Your task to perform on an android device: turn off wifi Image 0: 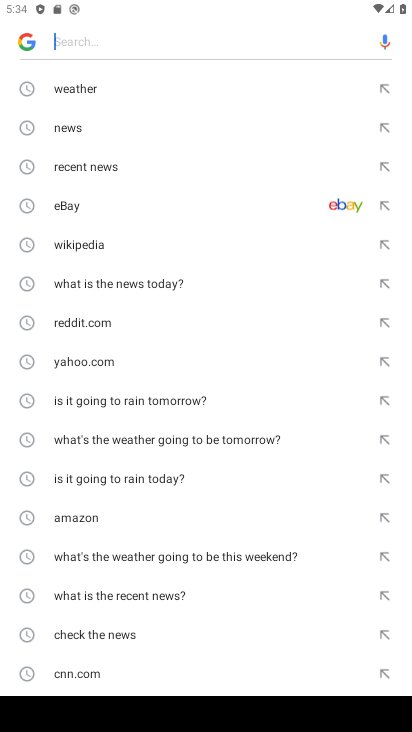
Step 0: press home button
Your task to perform on an android device: turn off wifi Image 1: 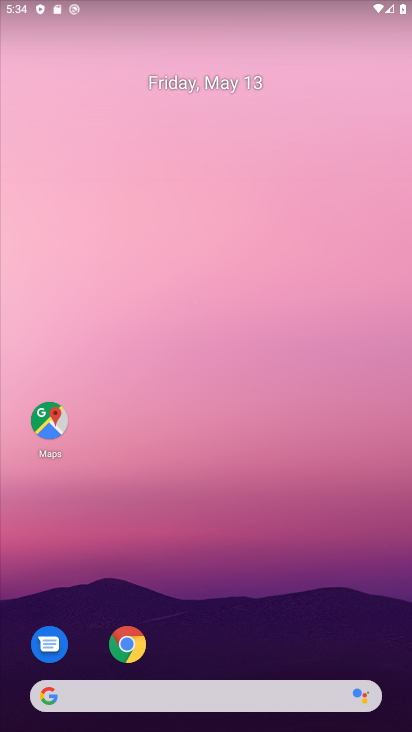
Step 1: drag from (224, 642) to (270, 136)
Your task to perform on an android device: turn off wifi Image 2: 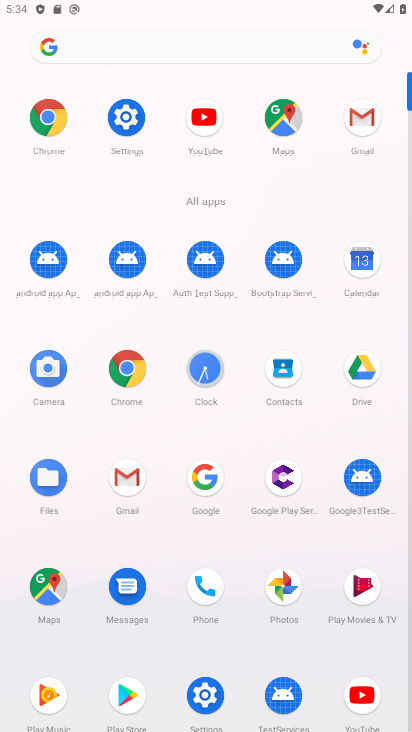
Step 2: click (131, 133)
Your task to perform on an android device: turn off wifi Image 3: 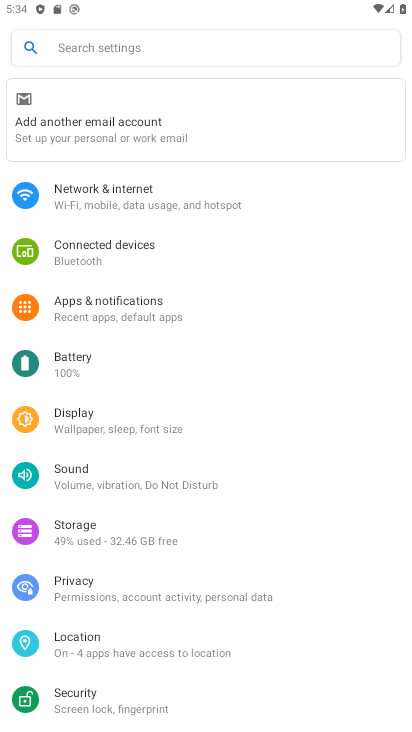
Step 3: click (124, 198)
Your task to perform on an android device: turn off wifi Image 4: 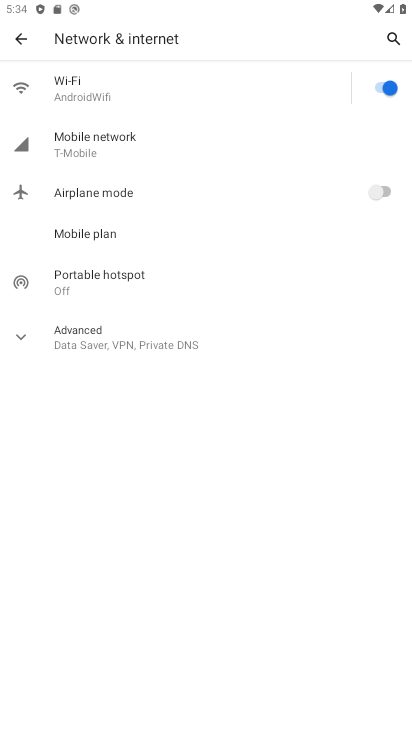
Step 4: click (371, 89)
Your task to perform on an android device: turn off wifi Image 5: 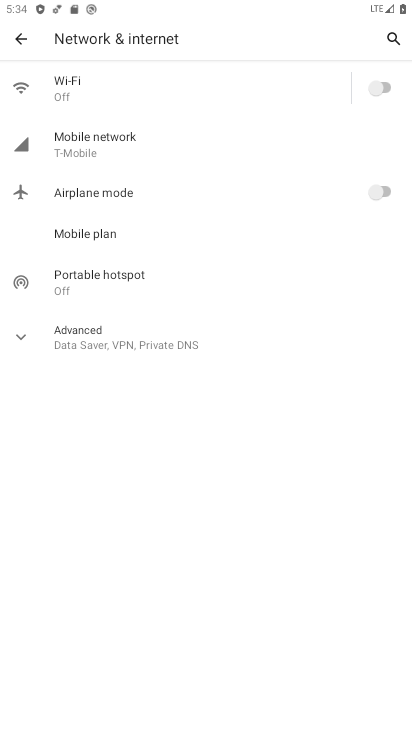
Step 5: task complete